Your task to perform on an android device: toggle sleep mode Image 0: 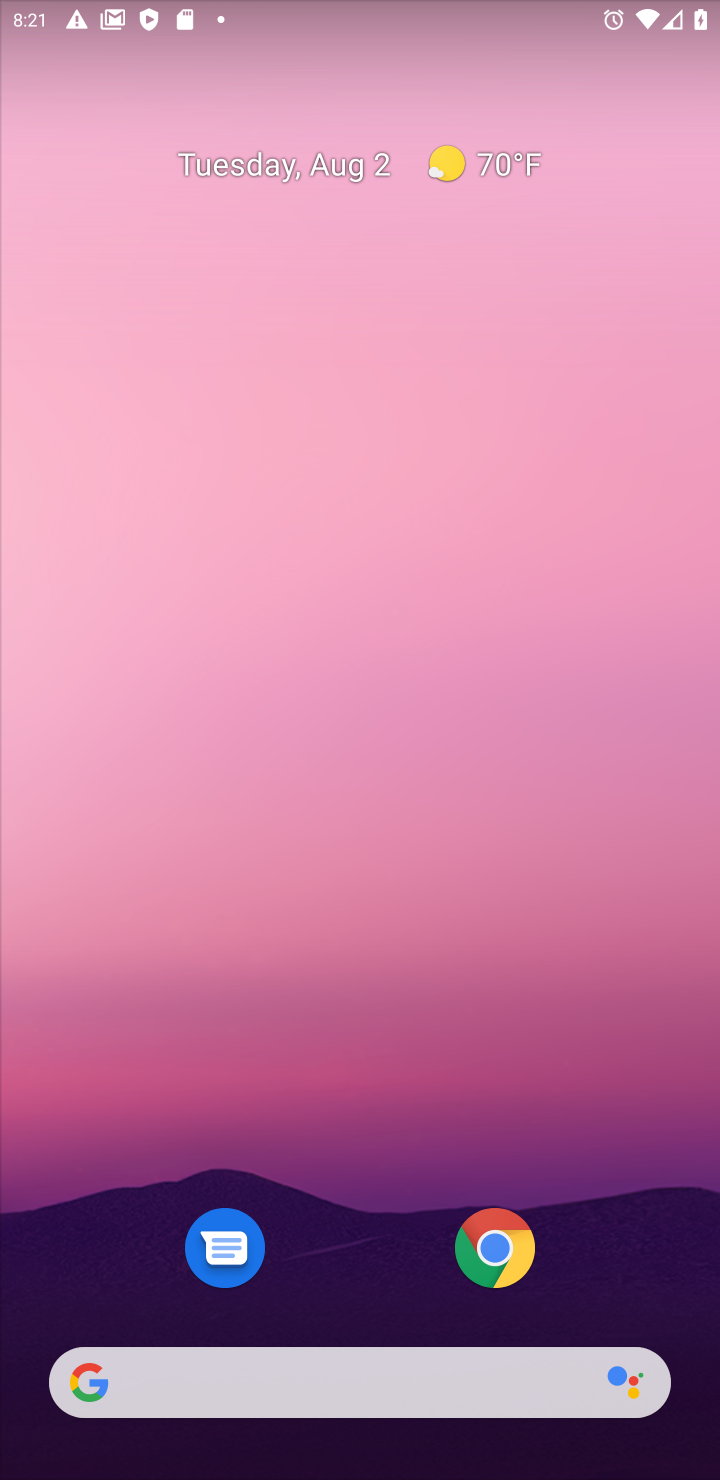
Step 0: drag from (346, 1258) to (470, 111)
Your task to perform on an android device: toggle sleep mode Image 1: 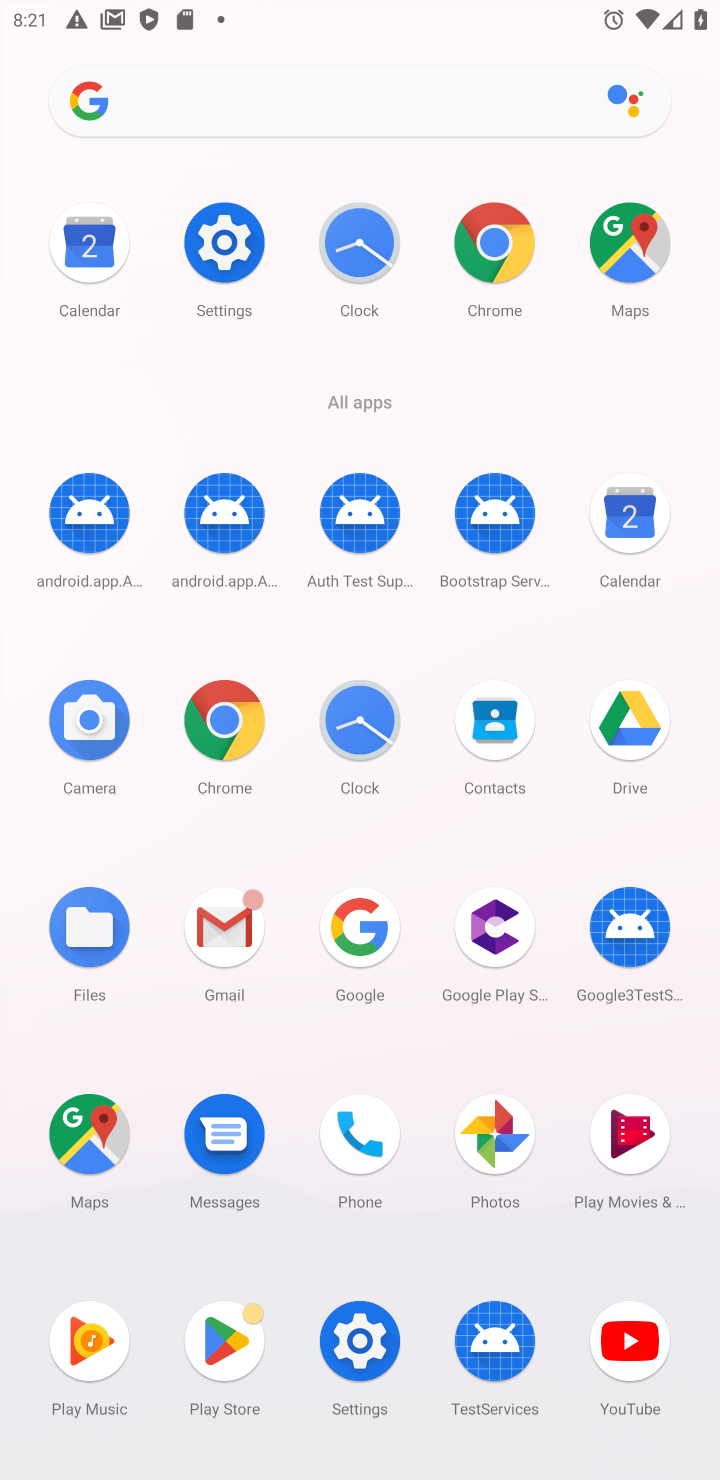
Step 1: click (378, 1338)
Your task to perform on an android device: toggle sleep mode Image 2: 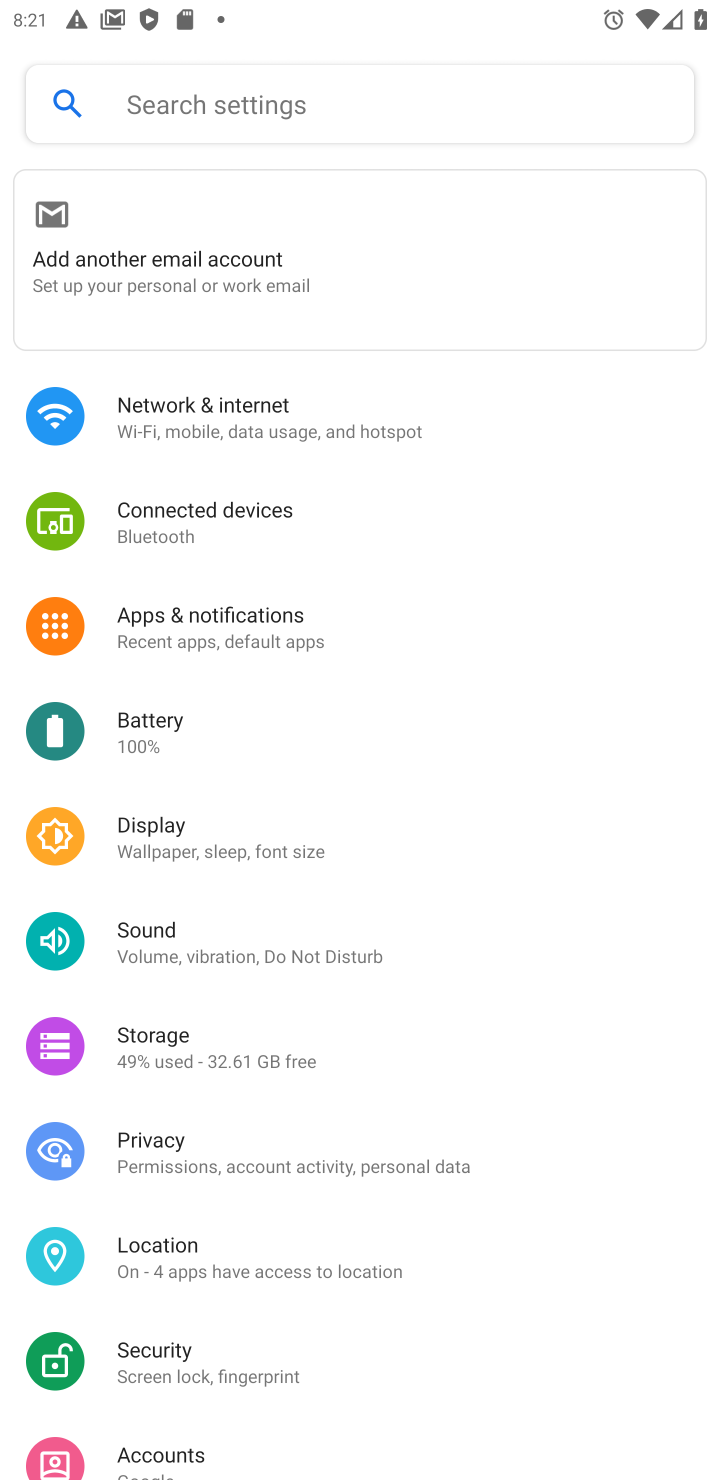
Step 2: click (196, 843)
Your task to perform on an android device: toggle sleep mode Image 3: 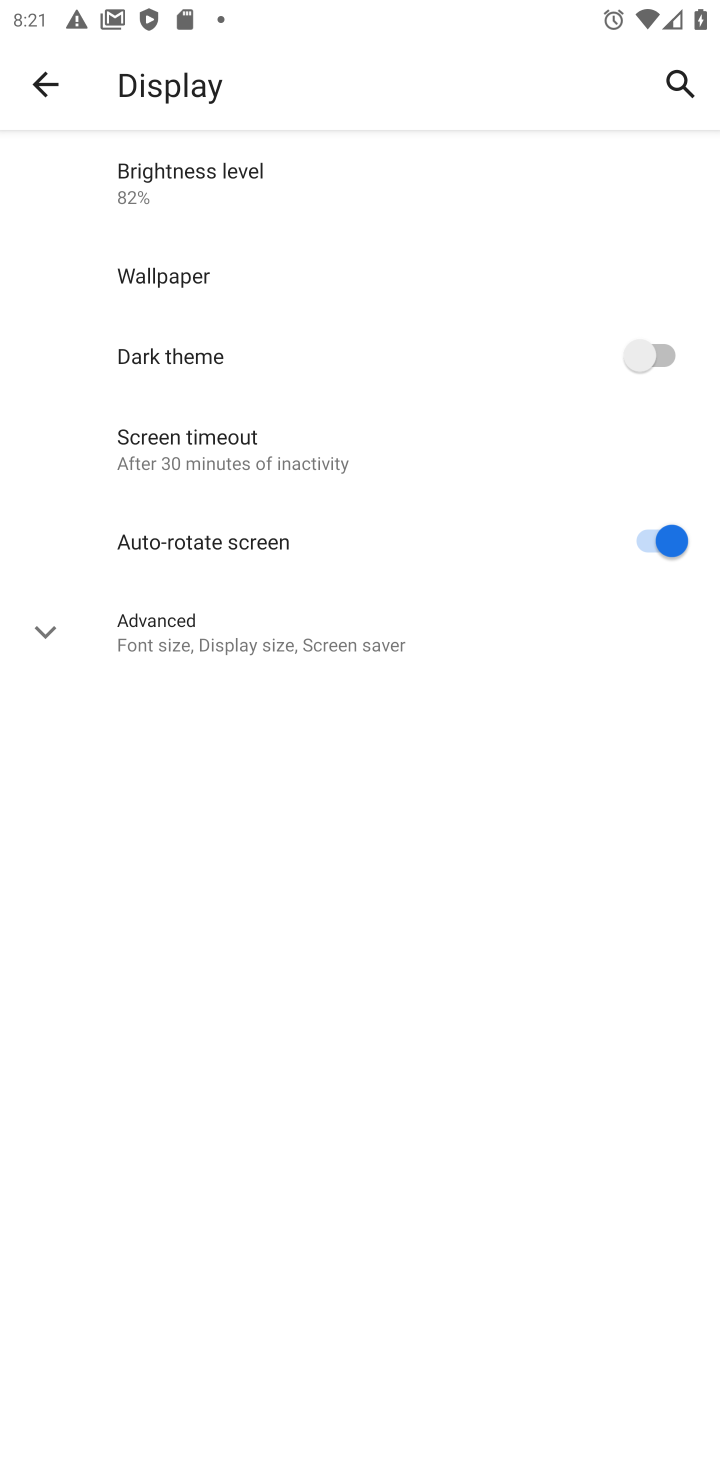
Step 3: click (175, 456)
Your task to perform on an android device: toggle sleep mode Image 4: 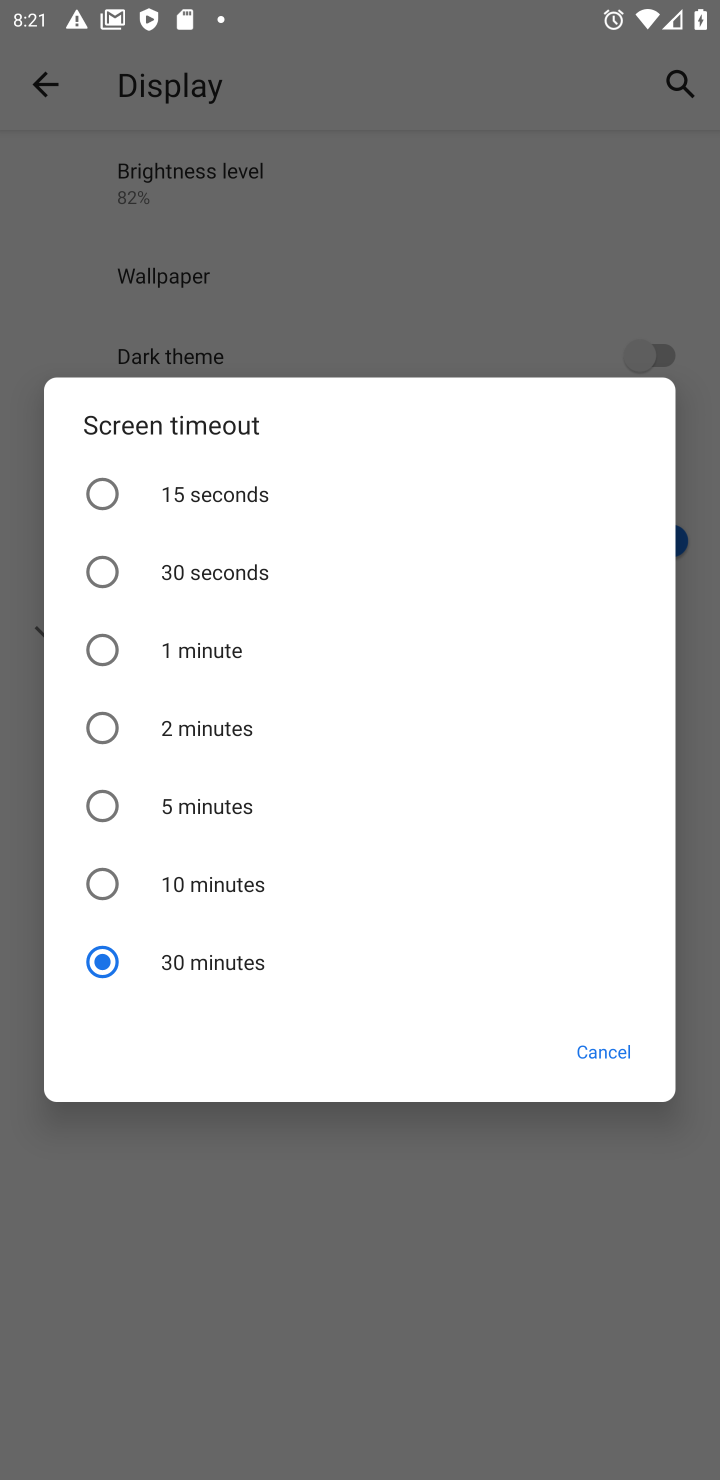
Step 4: click (214, 572)
Your task to perform on an android device: toggle sleep mode Image 5: 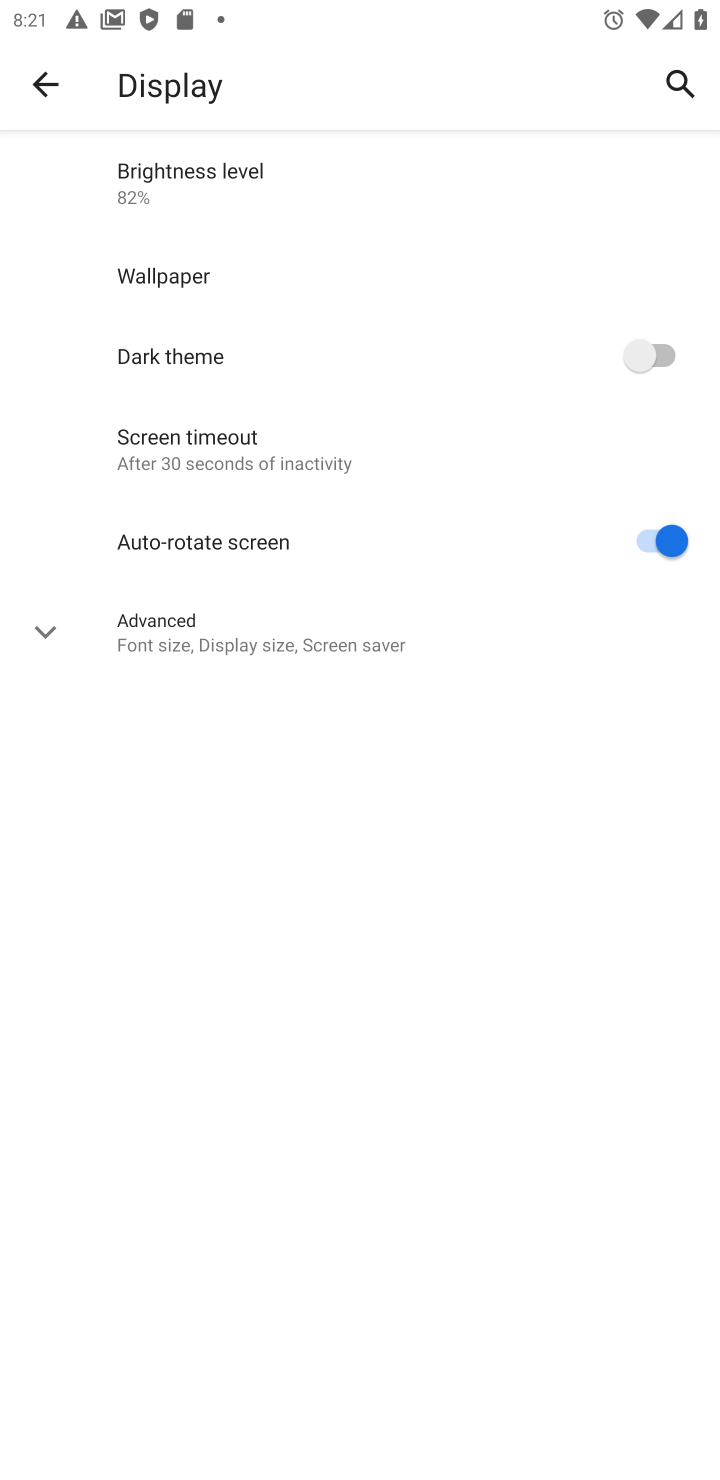
Step 5: click (232, 465)
Your task to perform on an android device: toggle sleep mode Image 6: 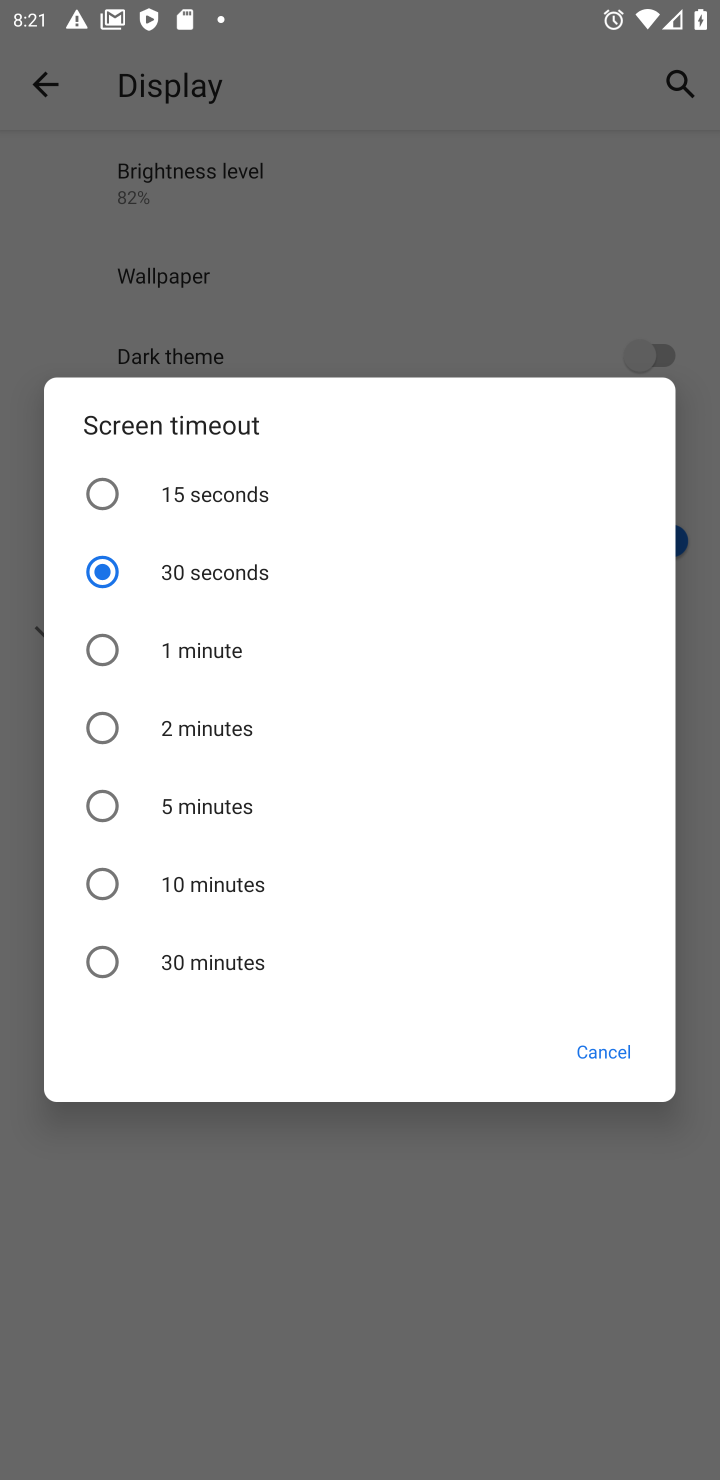
Step 6: click (240, 875)
Your task to perform on an android device: toggle sleep mode Image 7: 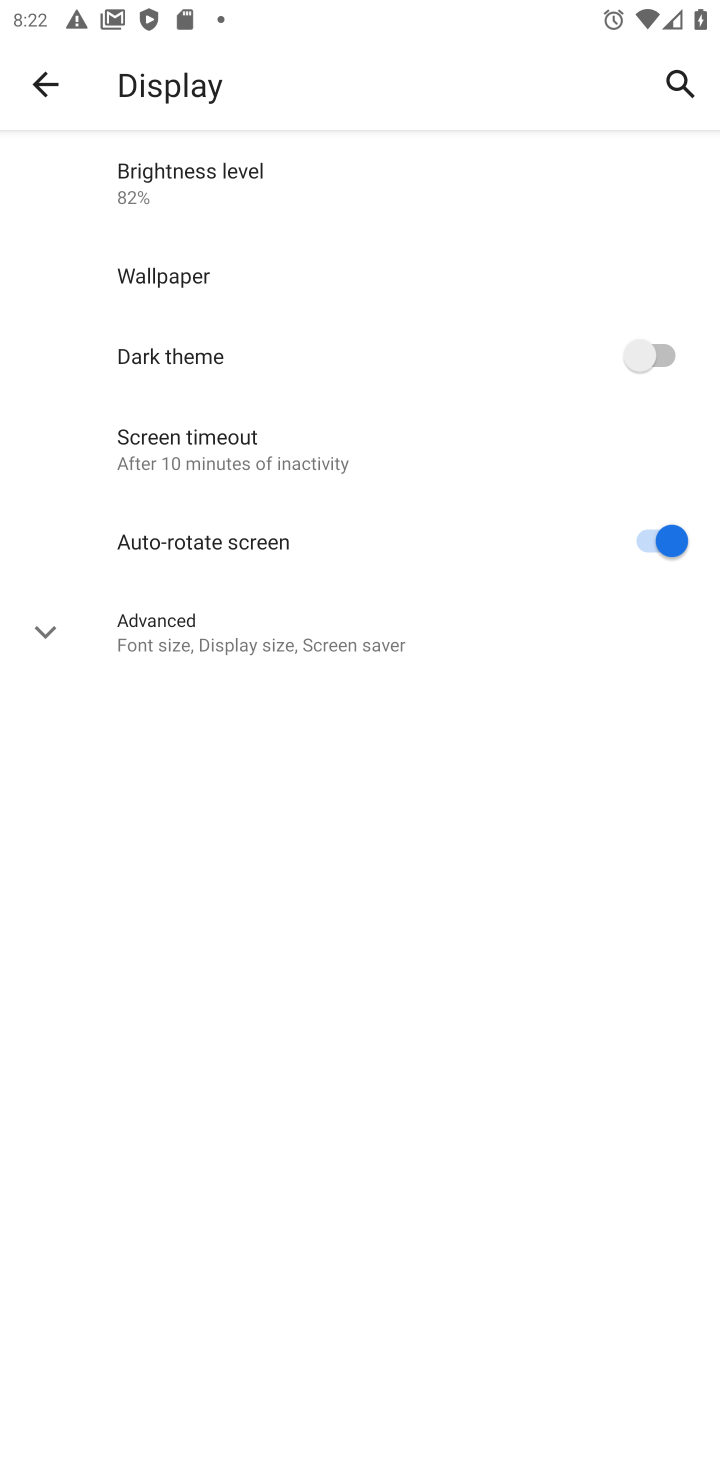
Step 7: task complete